Your task to perform on an android device: Search for sushi restaurants on Maps Image 0: 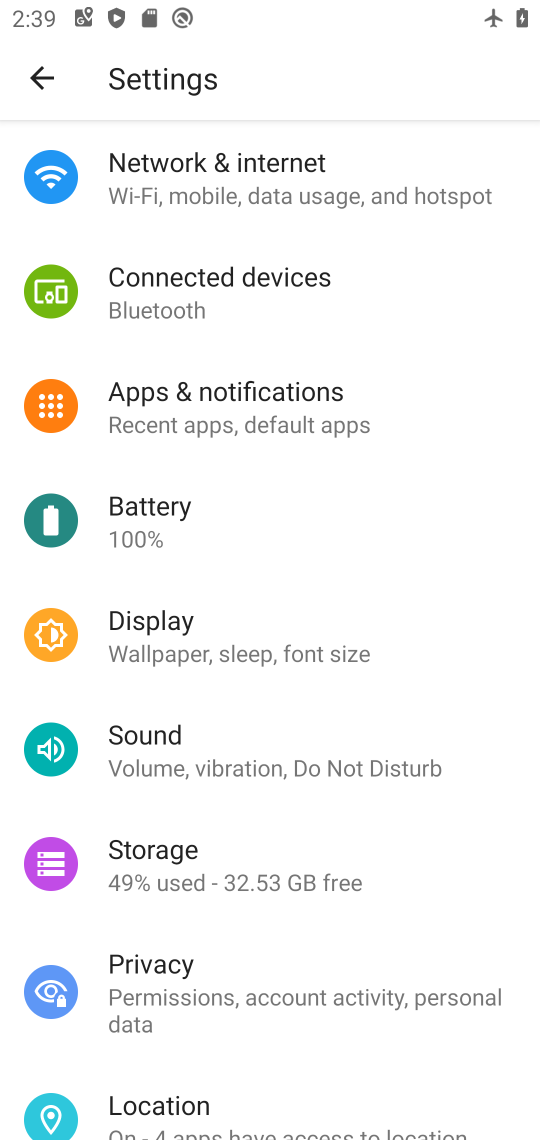
Step 0: press home button
Your task to perform on an android device: Search for sushi restaurants on Maps Image 1: 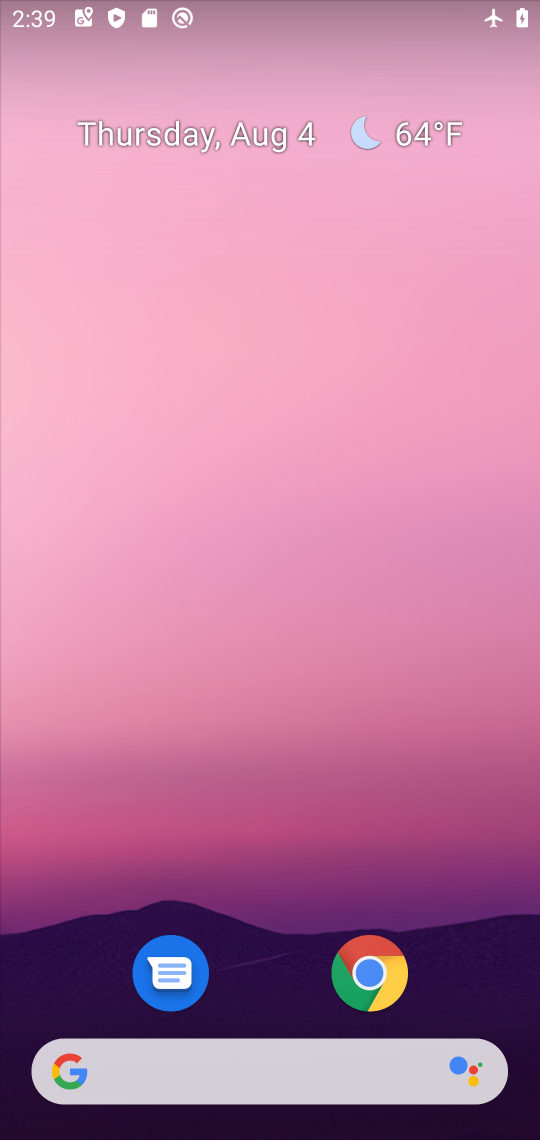
Step 1: drag from (292, 1023) to (302, 34)
Your task to perform on an android device: Search for sushi restaurants on Maps Image 2: 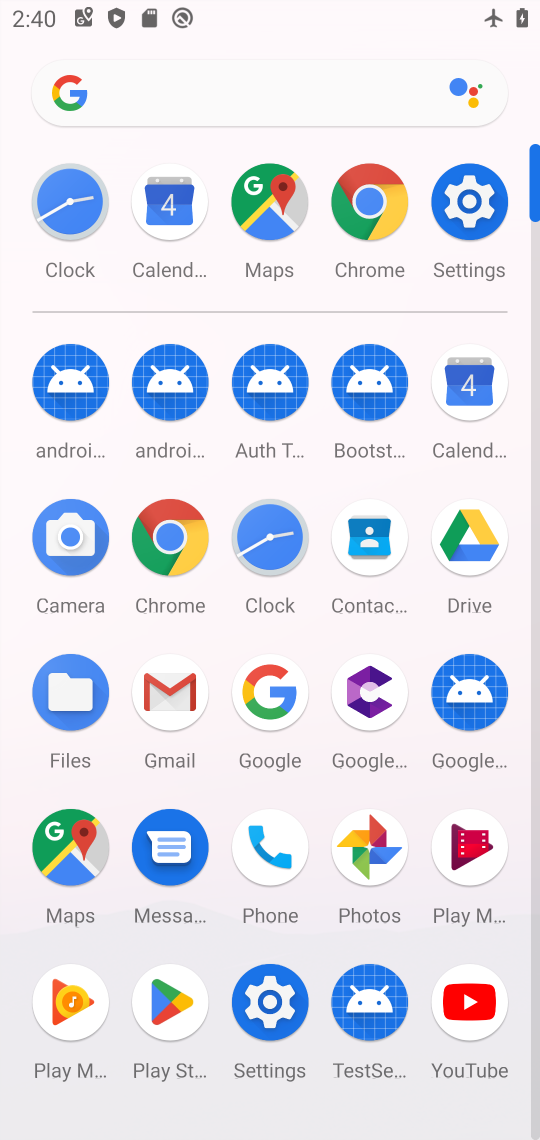
Step 2: click (72, 833)
Your task to perform on an android device: Search for sushi restaurants on Maps Image 3: 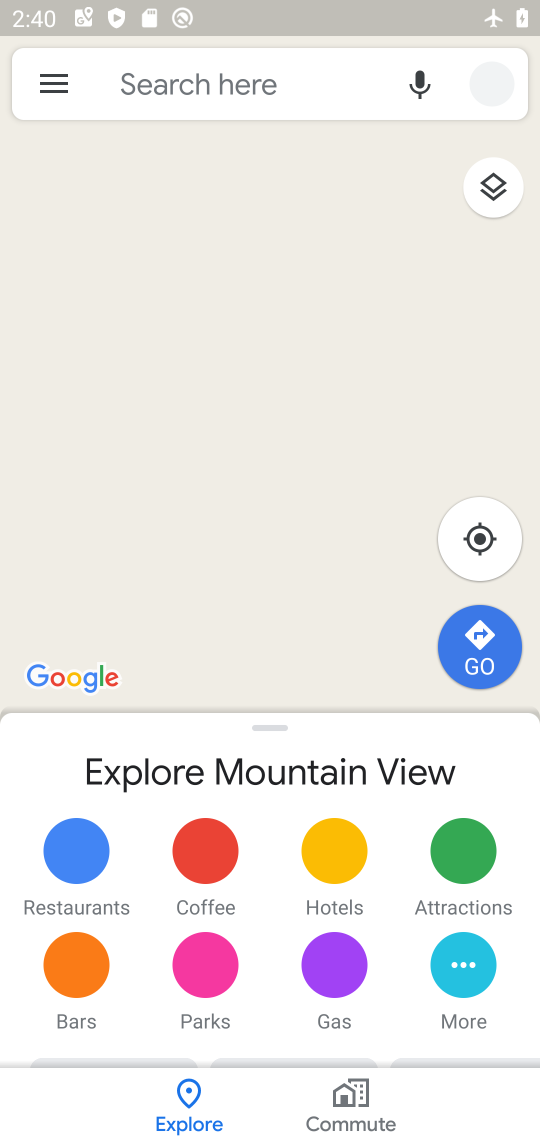
Step 3: click (183, 75)
Your task to perform on an android device: Search for sushi restaurants on Maps Image 4: 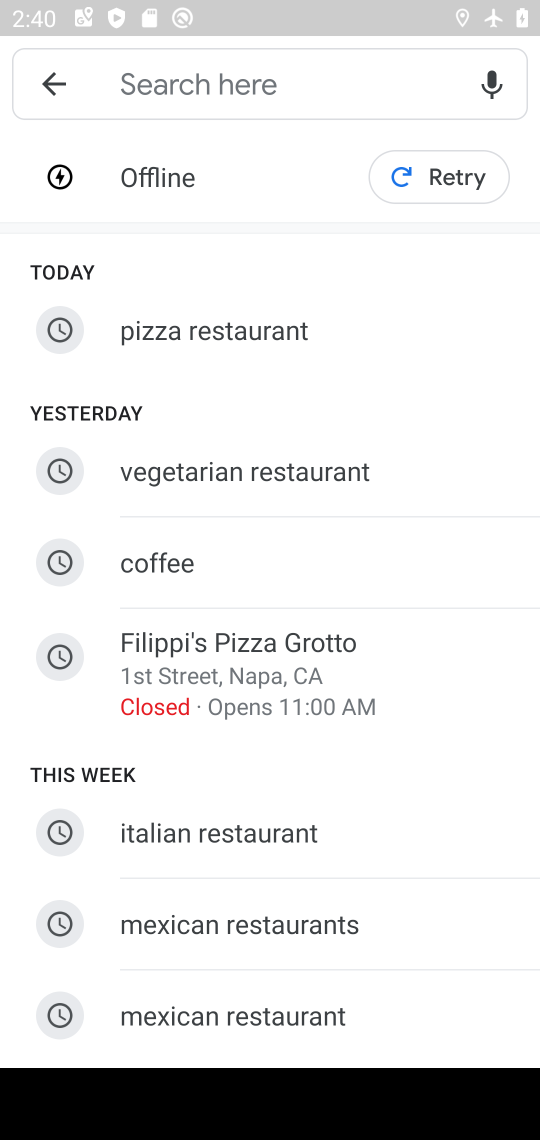
Step 4: drag from (223, 892) to (236, 227)
Your task to perform on an android device: Search for sushi restaurants on Maps Image 5: 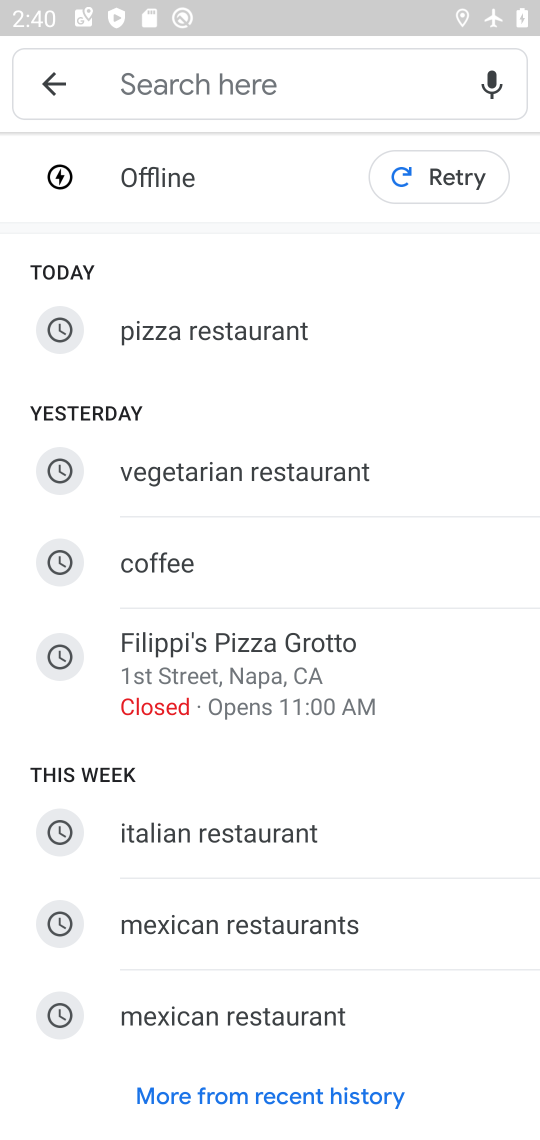
Step 5: click (266, 1098)
Your task to perform on an android device: Search for sushi restaurants on Maps Image 6: 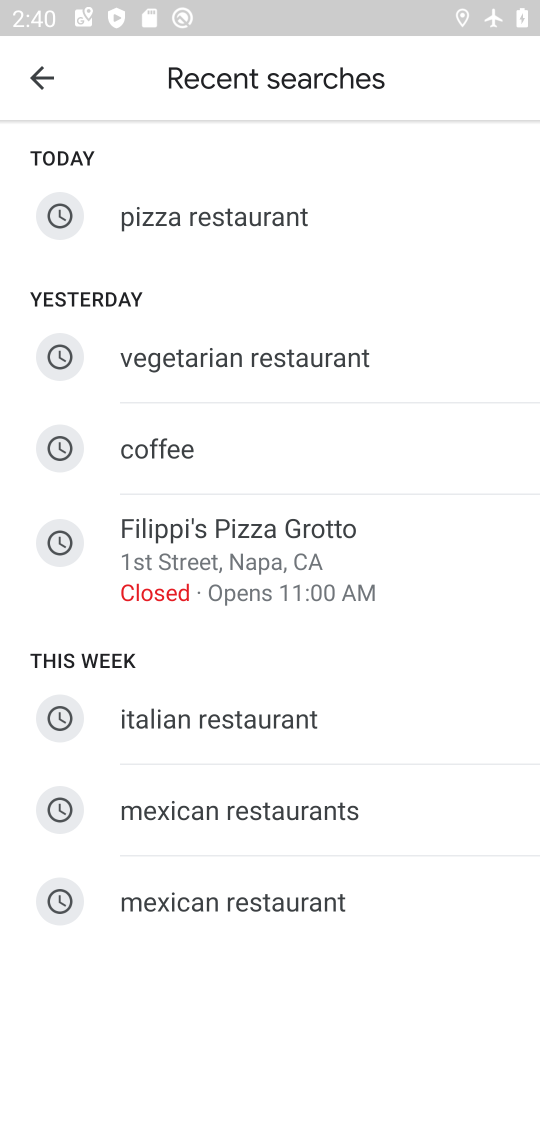
Step 6: drag from (283, 811) to (274, 154)
Your task to perform on an android device: Search for sushi restaurants on Maps Image 7: 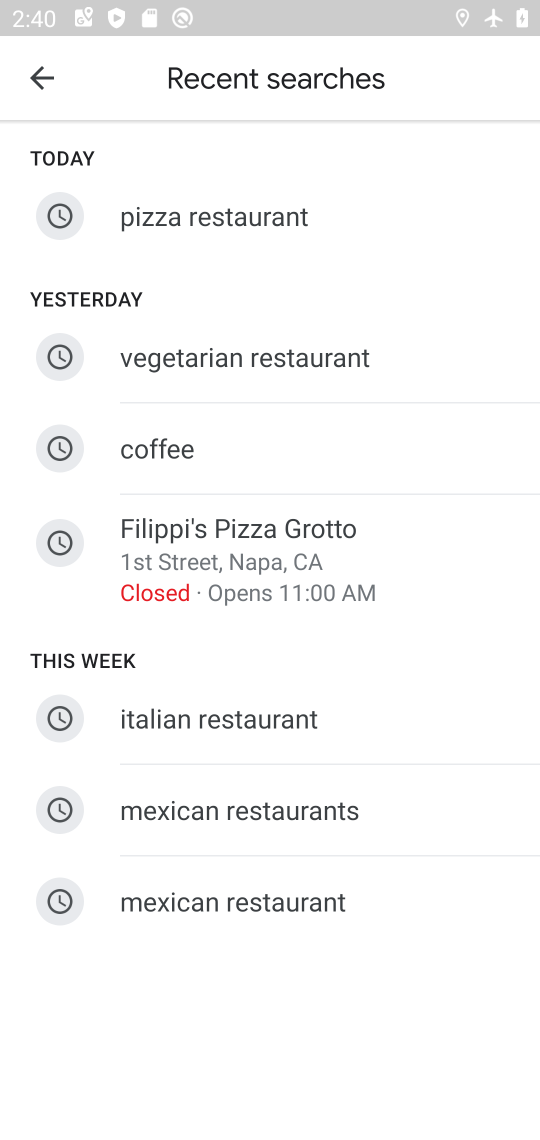
Step 7: click (33, 79)
Your task to perform on an android device: Search for sushi restaurants on Maps Image 8: 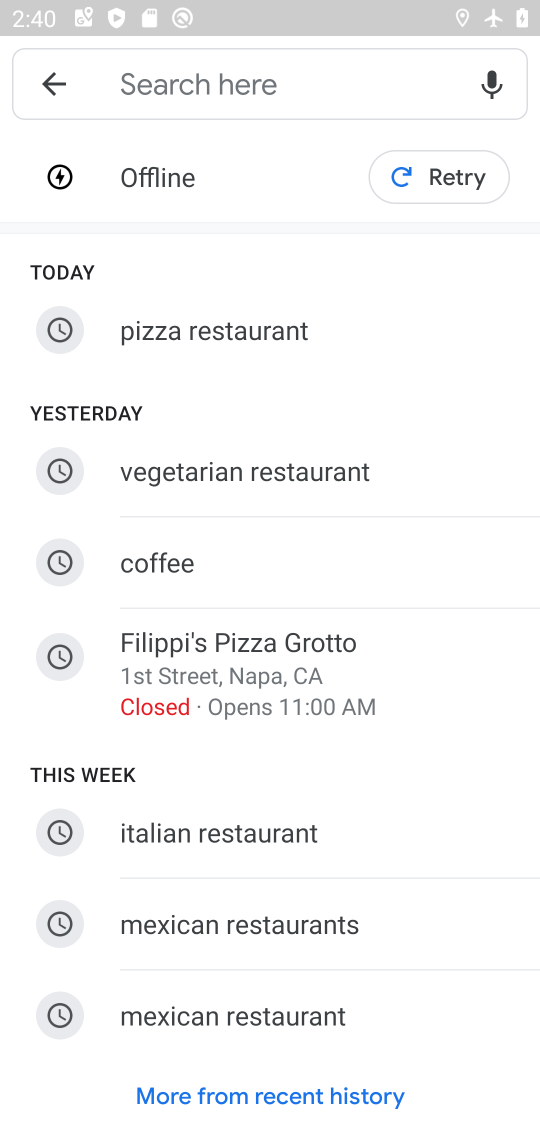
Step 8: click (140, 58)
Your task to perform on an android device: Search for sushi restaurants on Maps Image 9: 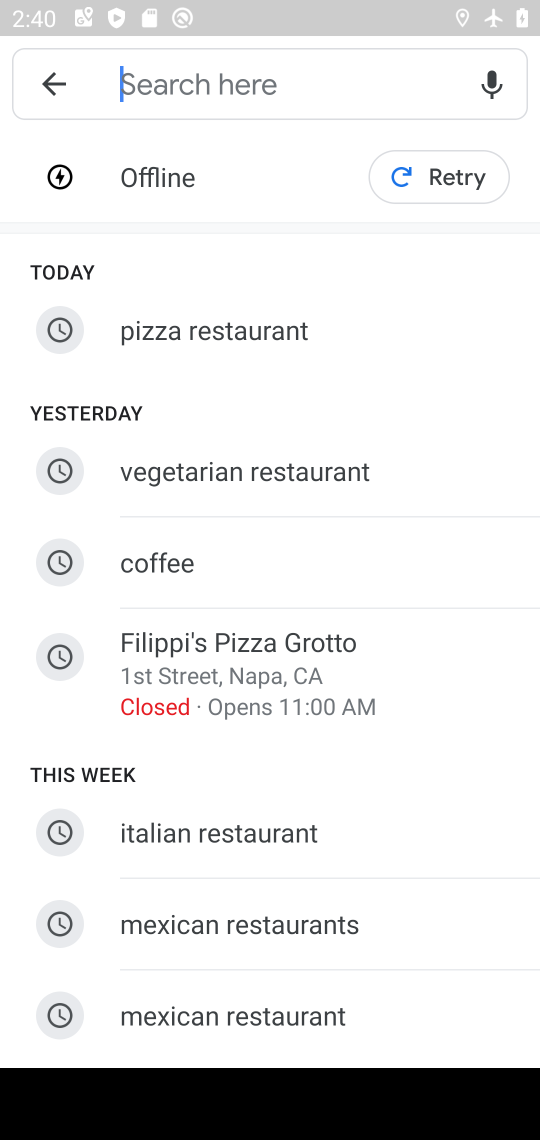
Step 9: type "ushi restaurants"
Your task to perform on an android device: Search for sushi restaurants on Maps Image 10: 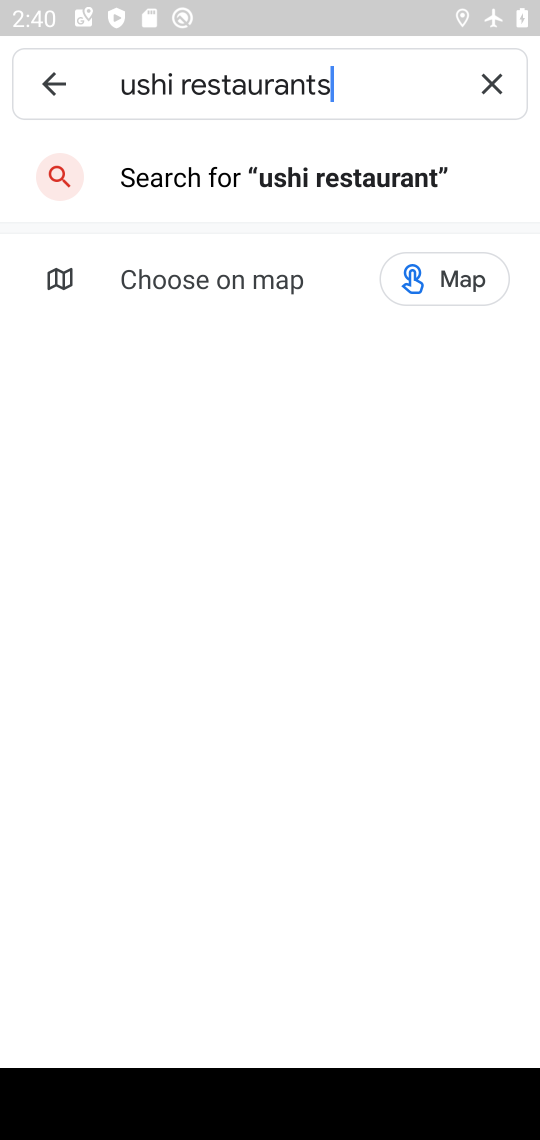
Step 10: type ""
Your task to perform on an android device: Search for sushi restaurants on Maps Image 11: 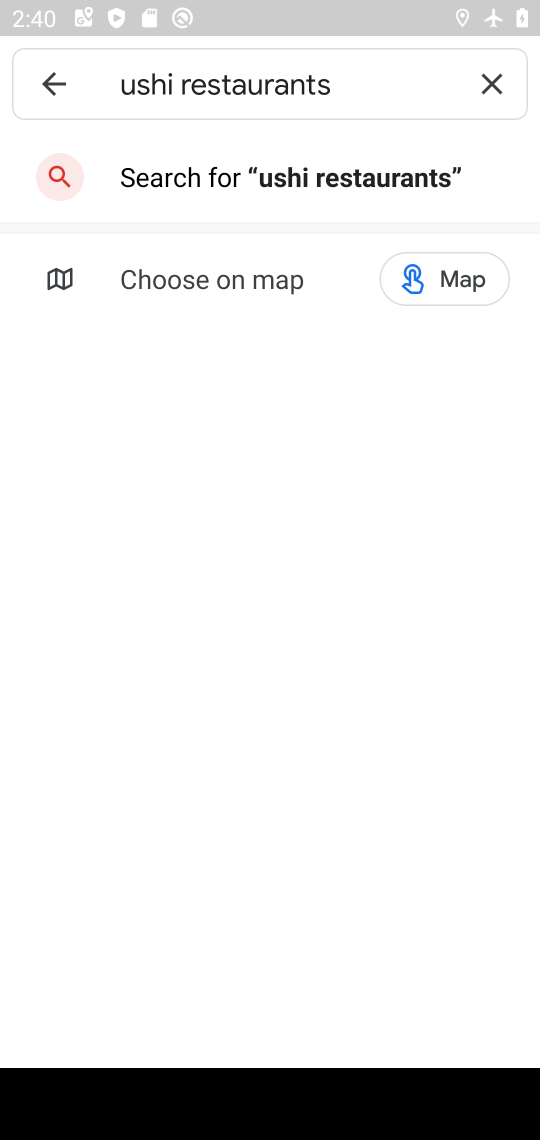
Step 11: click (182, 204)
Your task to perform on an android device: Search for sushi restaurants on Maps Image 12: 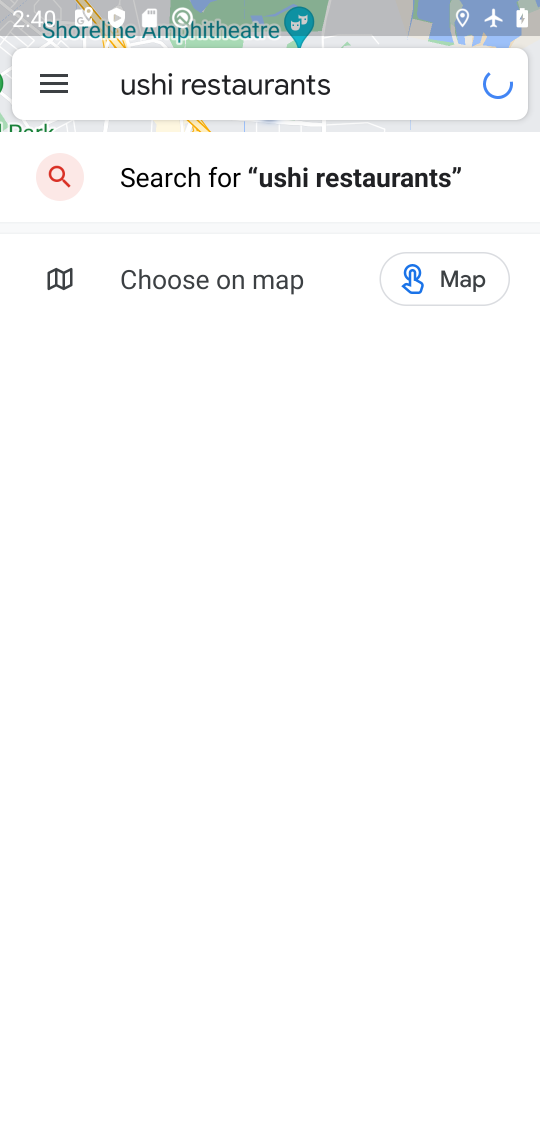
Step 12: task complete